Your task to perform on an android device: turn off notifications settings in the gmail app Image 0: 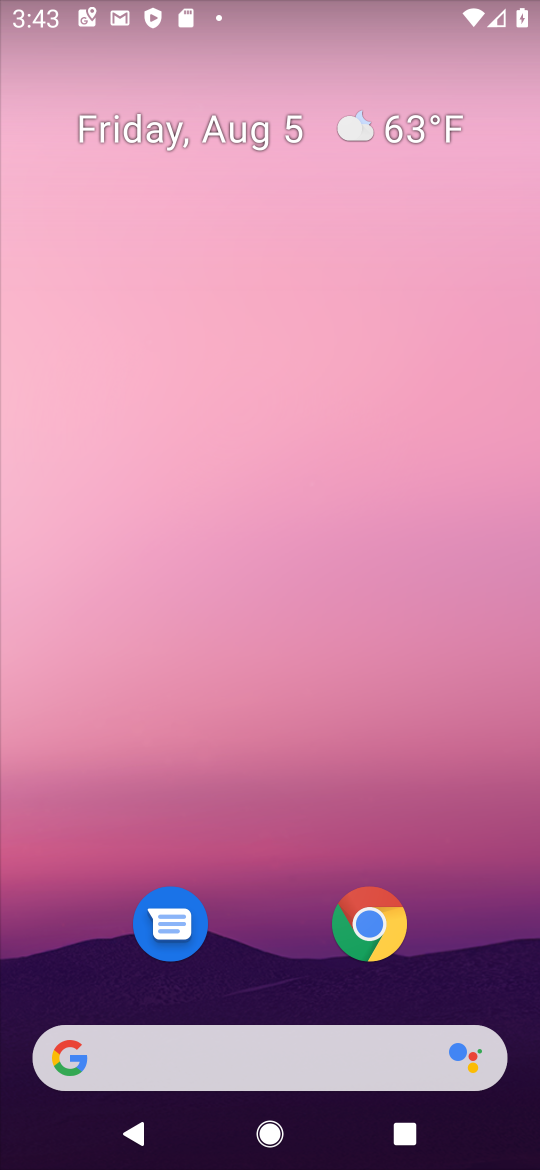
Step 0: drag from (244, 928) to (155, 292)
Your task to perform on an android device: turn off notifications settings in the gmail app Image 1: 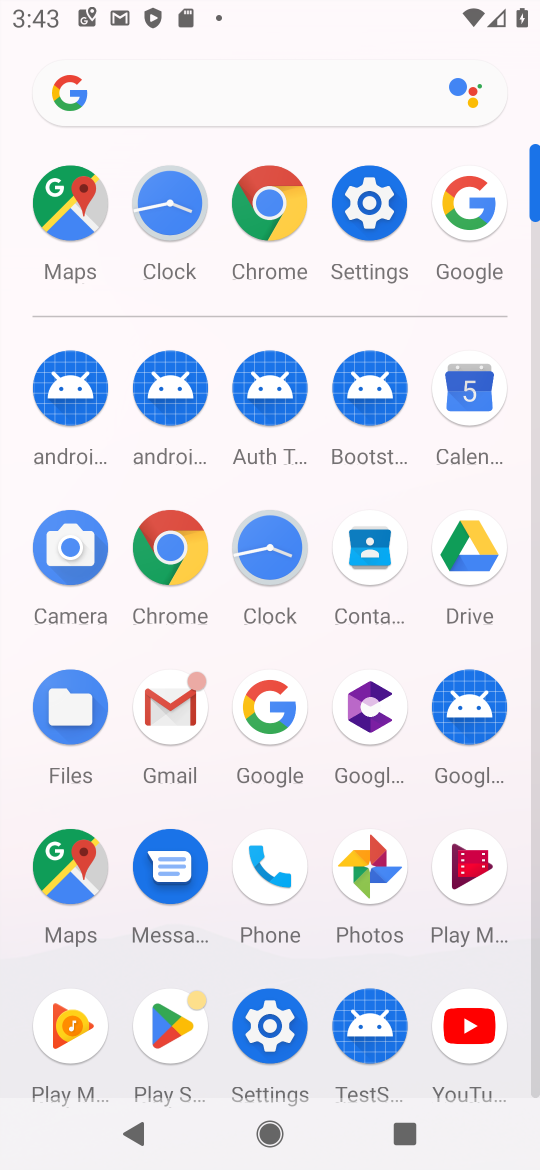
Step 1: click (162, 714)
Your task to perform on an android device: turn off notifications settings in the gmail app Image 2: 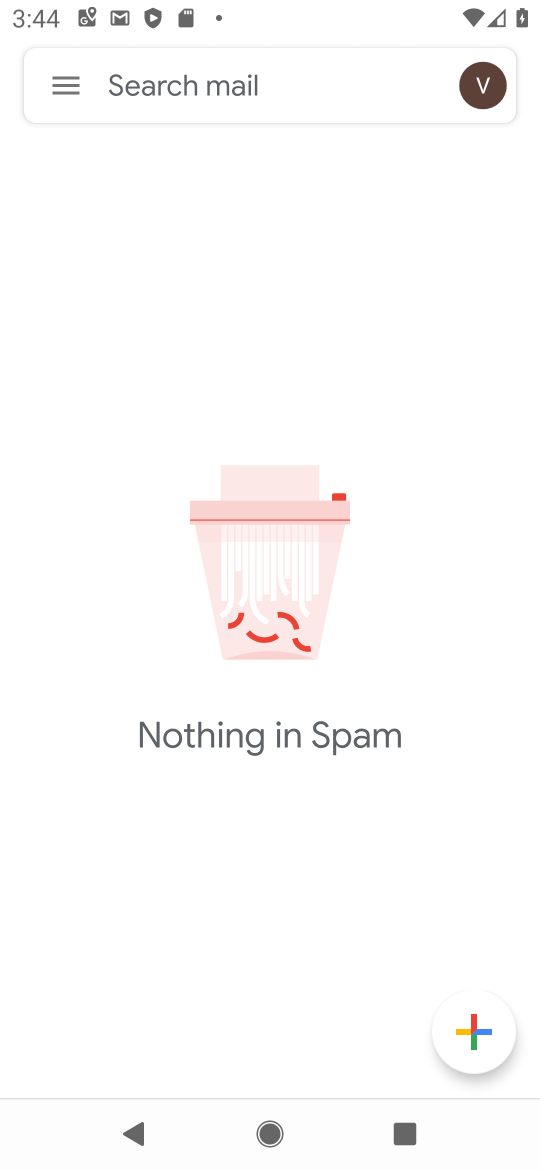
Step 2: click (46, 99)
Your task to perform on an android device: turn off notifications settings in the gmail app Image 3: 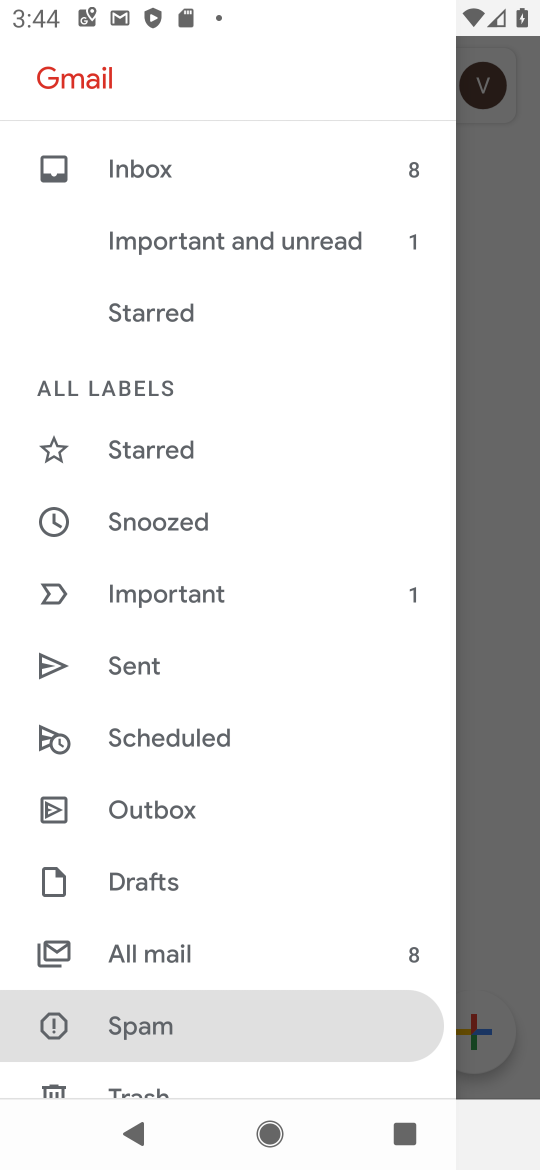
Step 3: drag from (163, 1025) to (83, 340)
Your task to perform on an android device: turn off notifications settings in the gmail app Image 4: 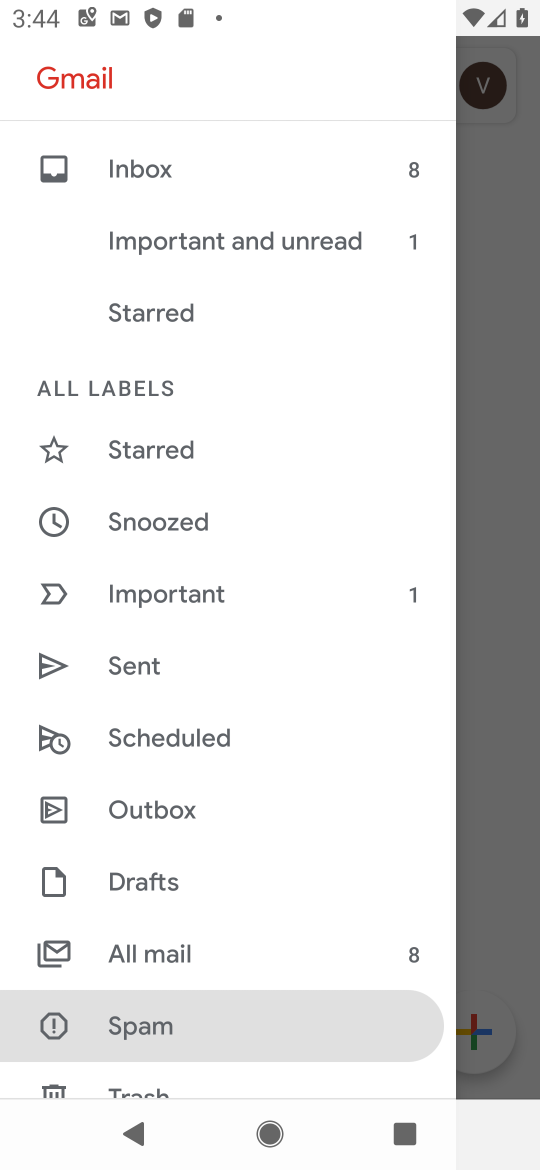
Step 4: drag from (172, 893) to (102, 92)
Your task to perform on an android device: turn off notifications settings in the gmail app Image 5: 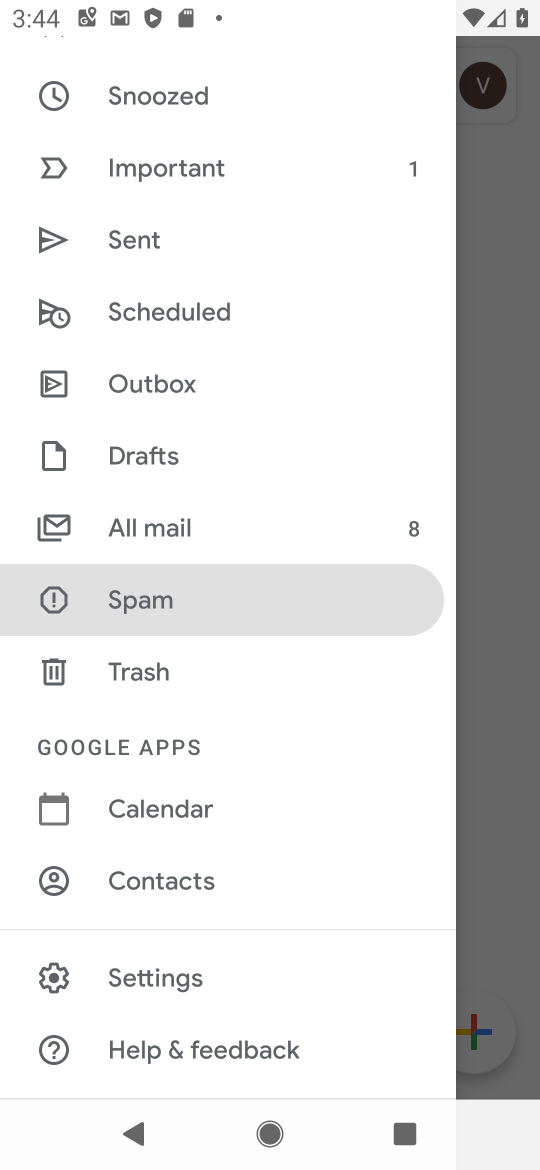
Step 5: click (198, 972)
Your task to perform on an android device: turn off notifications settings in the gmail app Image 6: 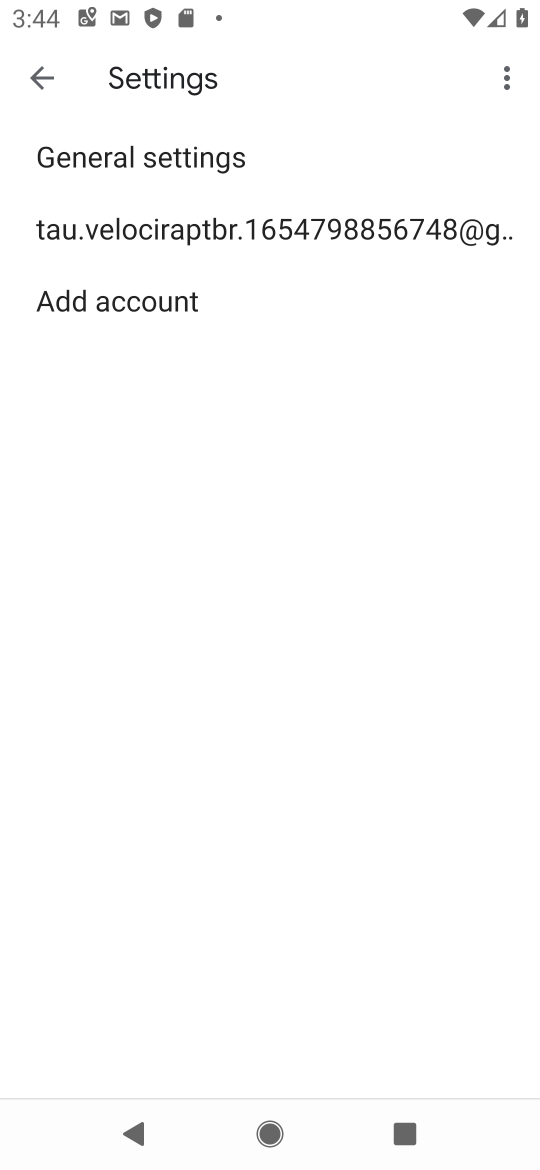
Step 6: click (267, 229)
Your task to perform on an android device: turn off notifications settings in the gmail app Image 7: 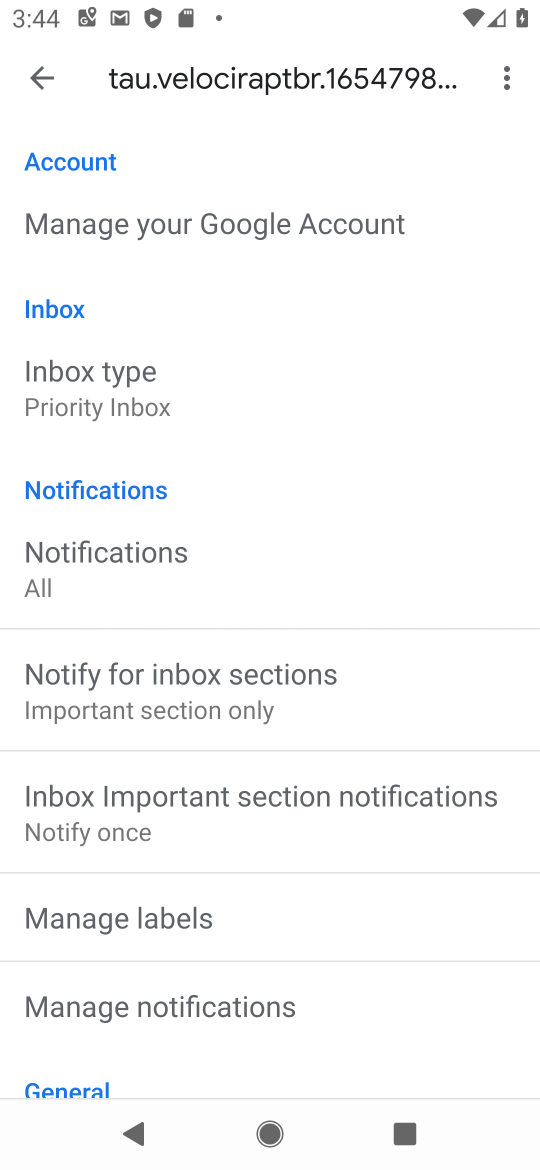
Step 7: click (185, 1001)
Your task to perform on an android device: turn off notifications settings in the gmail app Image 8: 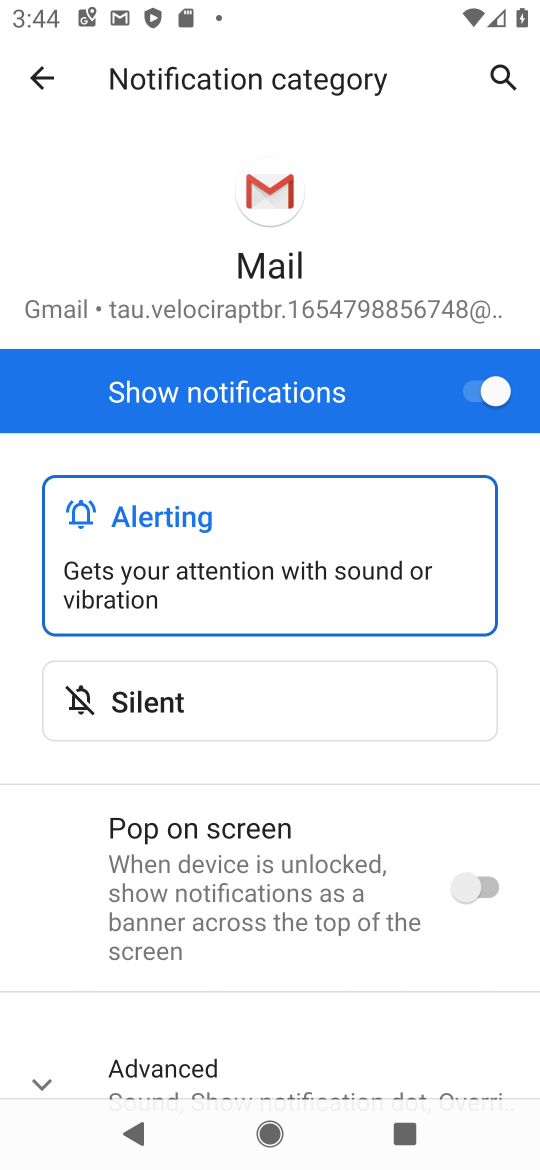
Step 8: click (492, 383)
Your task to perform on an android device: turn off notifications settings in the gmail app Image 9: 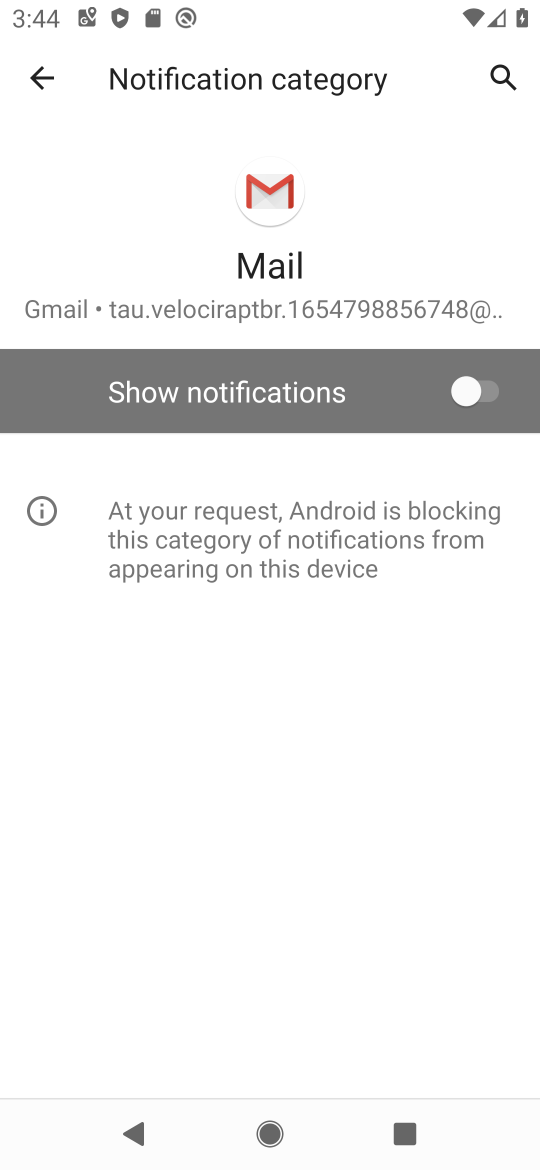
Step 9: task complete